Your task to perform on an android device: Go to eBay Image 0: 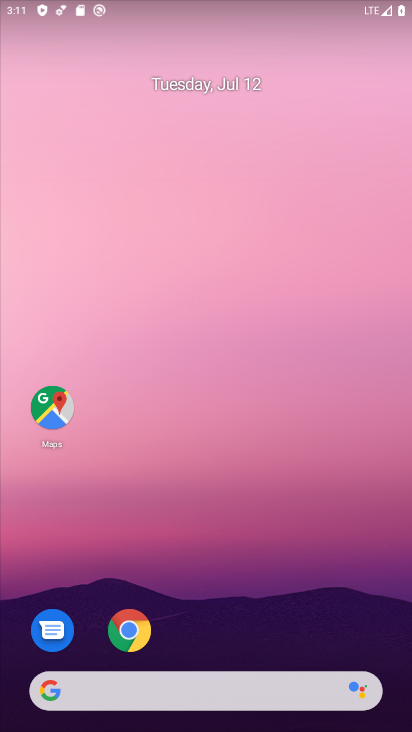
Step 0: click (132, 632)
Your task to perform on an android device: Go to eBay Image 1: 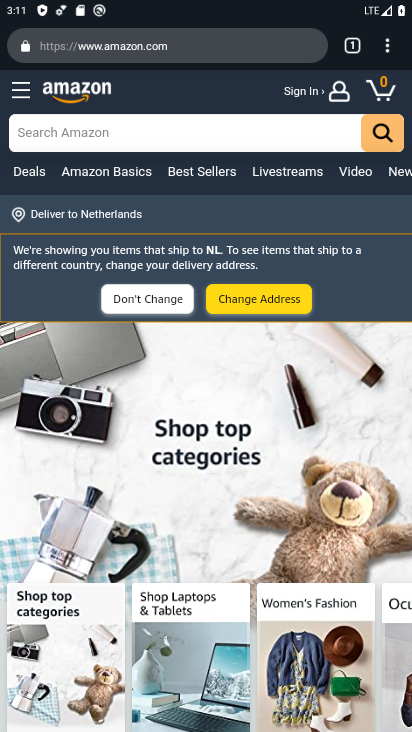
Step 1: click (221, 54)
Your task to perform on an android device: Go to eBay Image 2: 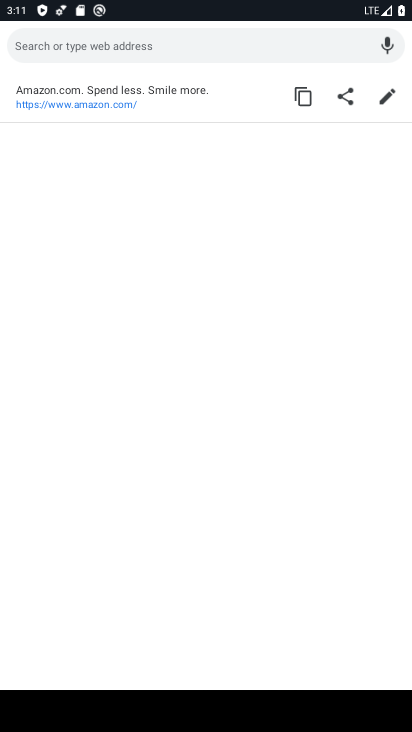
Step 2: type "eBay"
Your task to perform on an android device: Go to eBay Image 3: 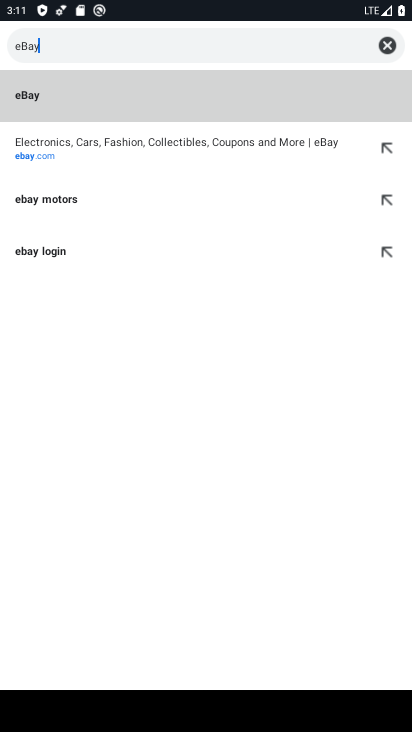
Step 3: click (50, 101)
Your task to perform on an android device: Go to eBay Image 4: 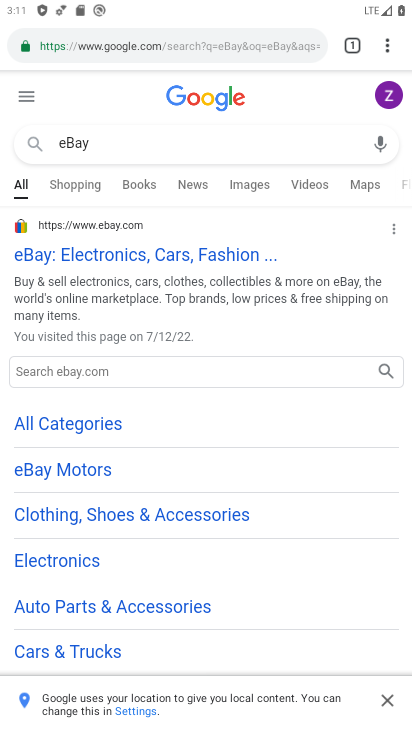
Step 4: task complete